Your task to perform on an android device: Play the last video I watched on Youtube Image 0: 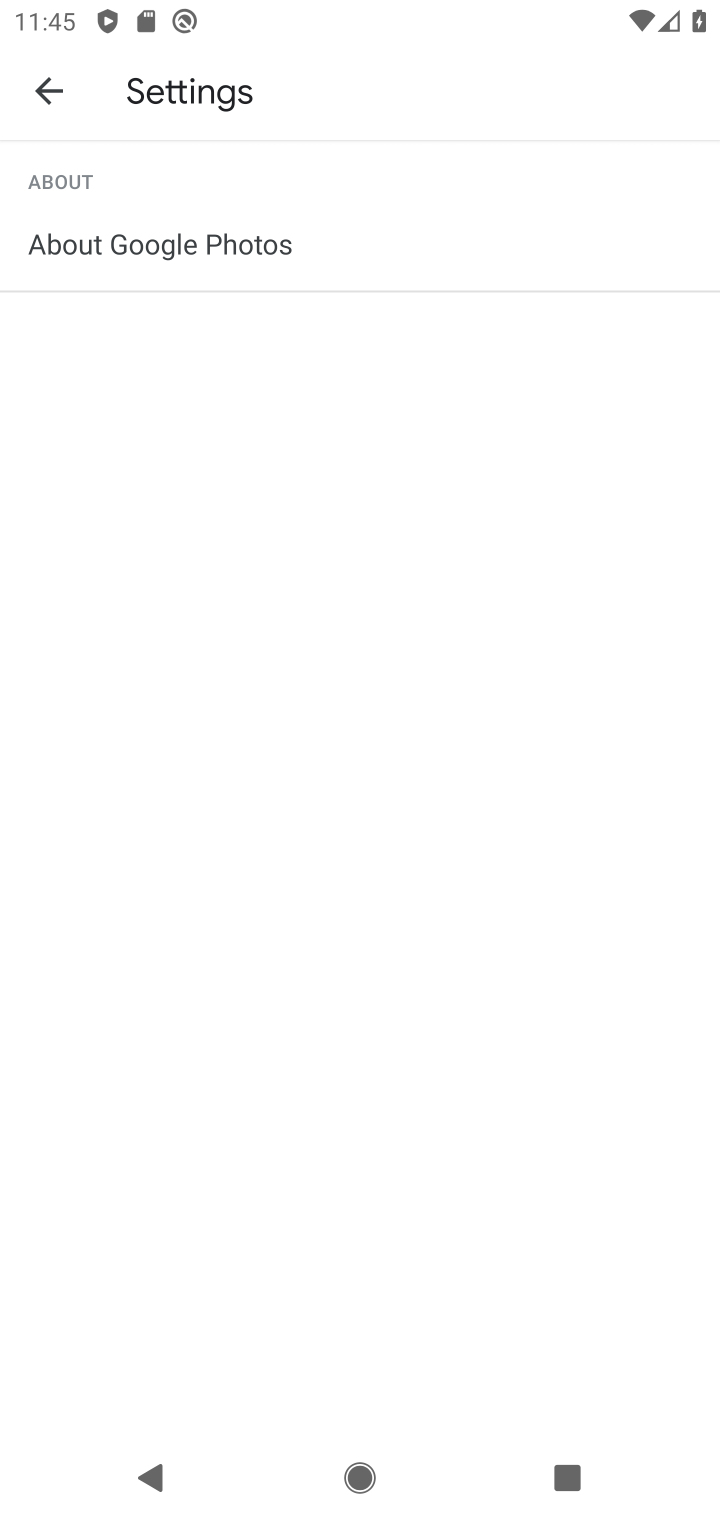
Step 0: press home button
Your task to perform on an android device: Play the last video I watched on Youtube Image 1: 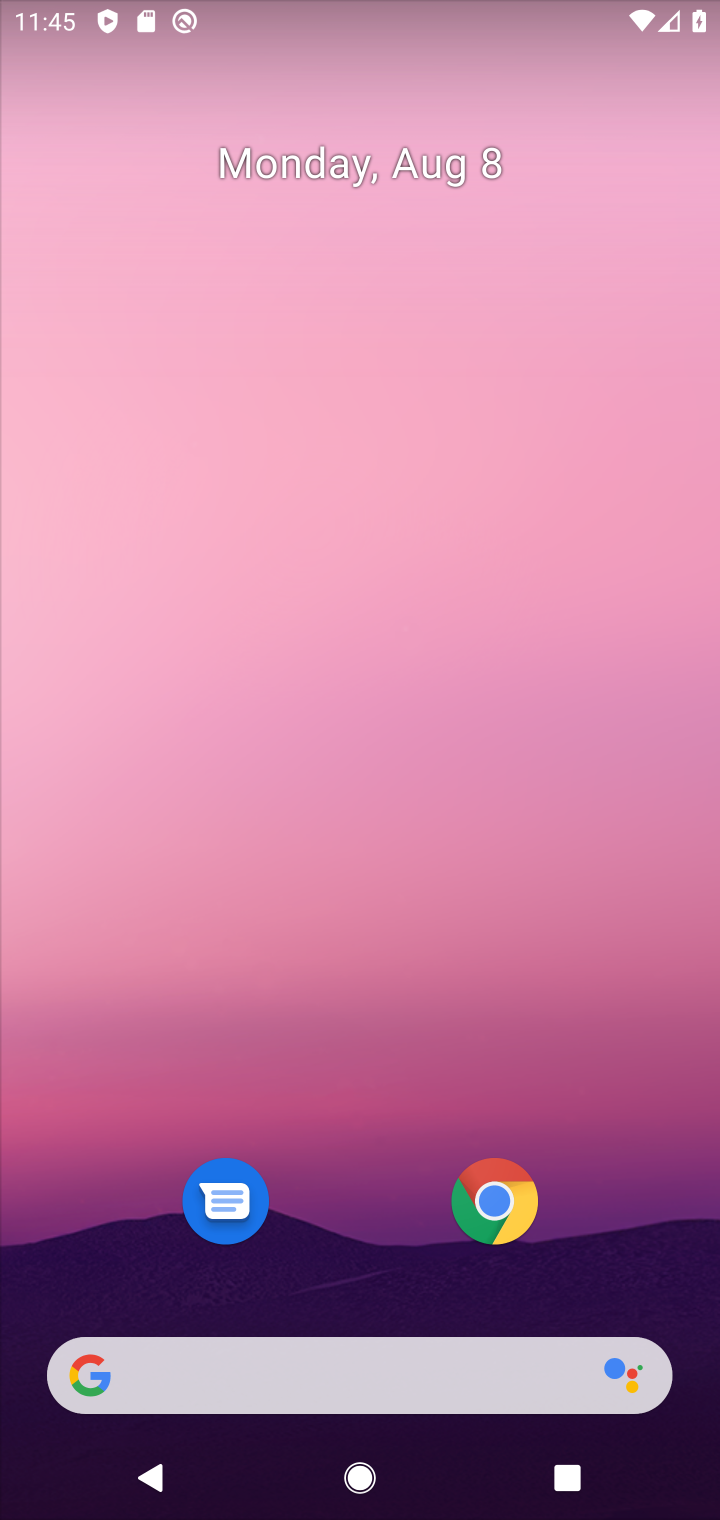
Step 1: drag from (393, 1032) to (396, 168)
Your task to perform on an android device: Play the last video I watched on Youtube Image 2: 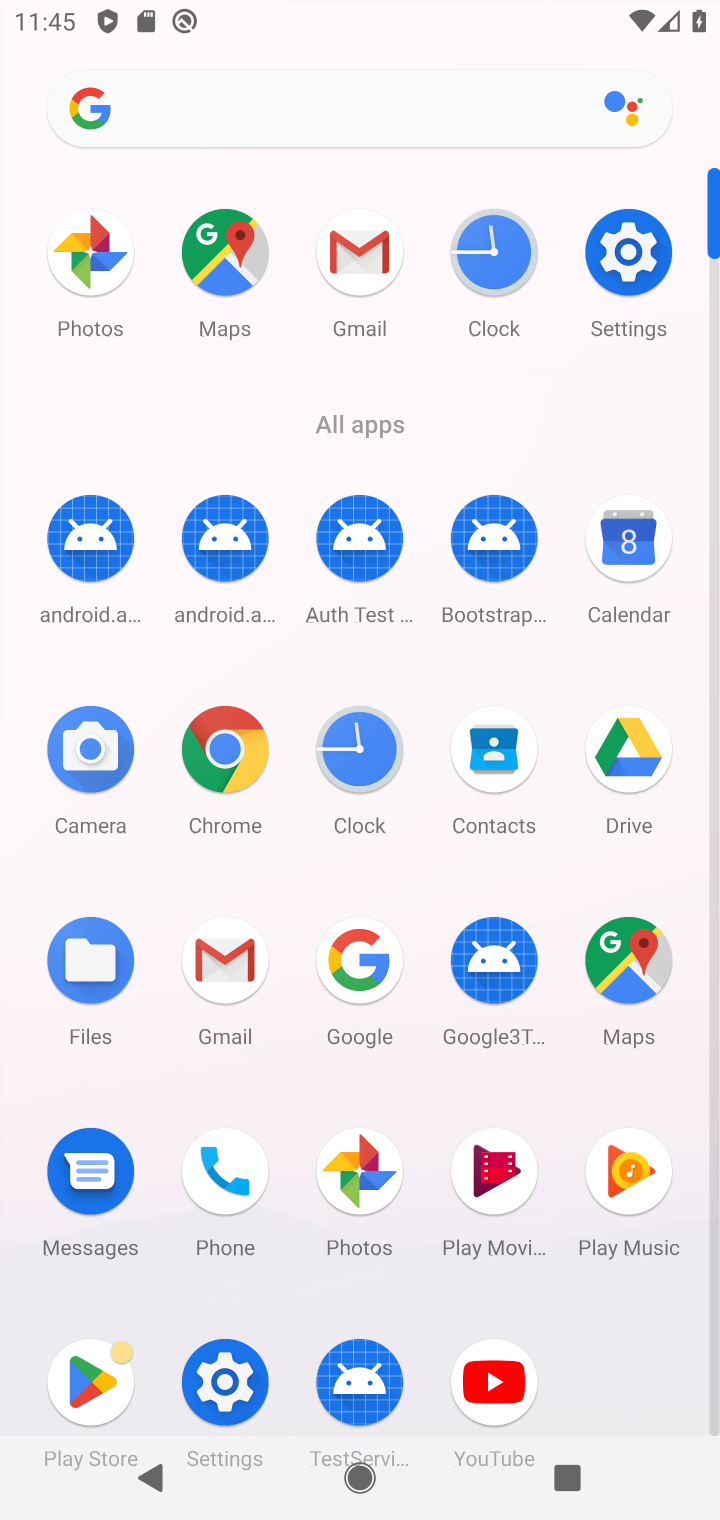
Step 2: click (501, 1387)
Your task to perform on an android device: Play the last video I watched on Youtube Image 3: 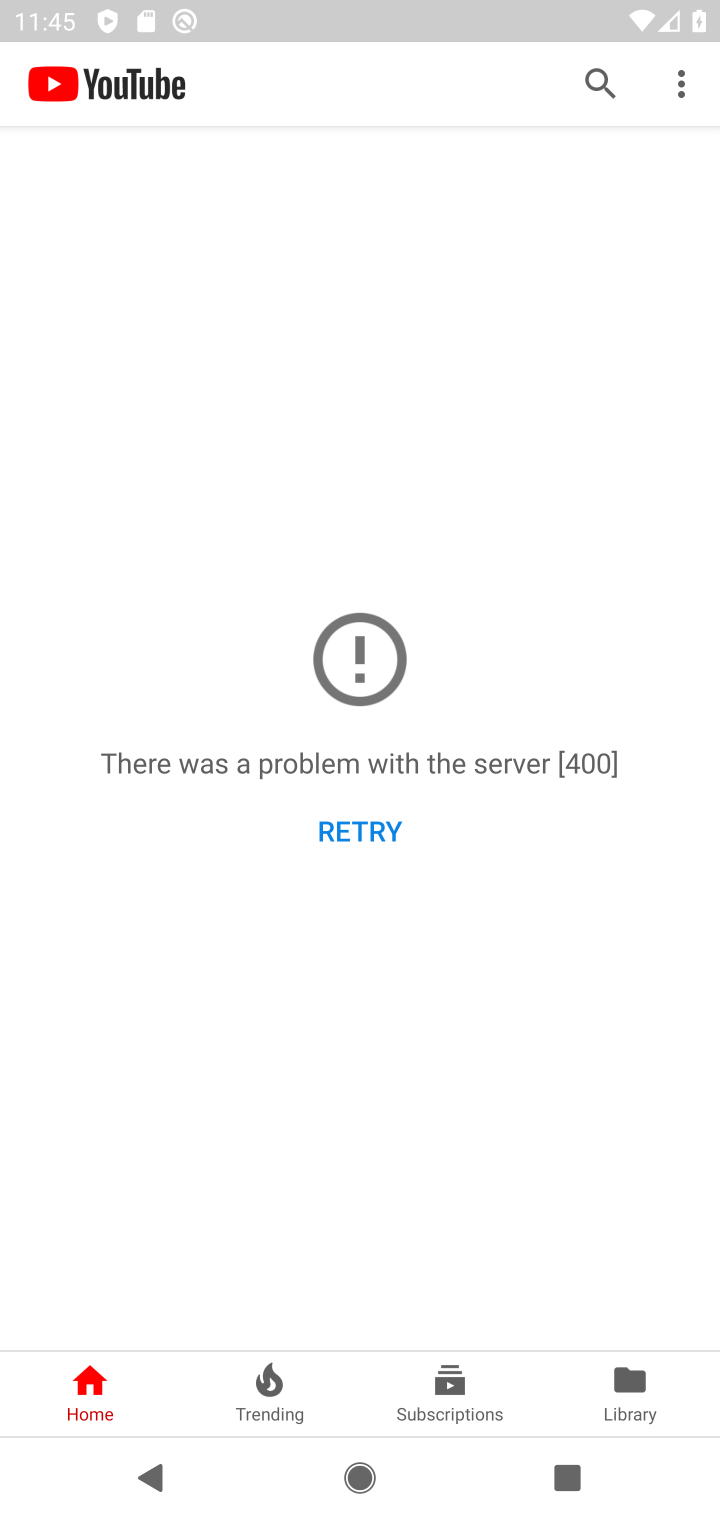
Step 3: task complete